Your task to perform on an android device: Go to battery settings Image 0: 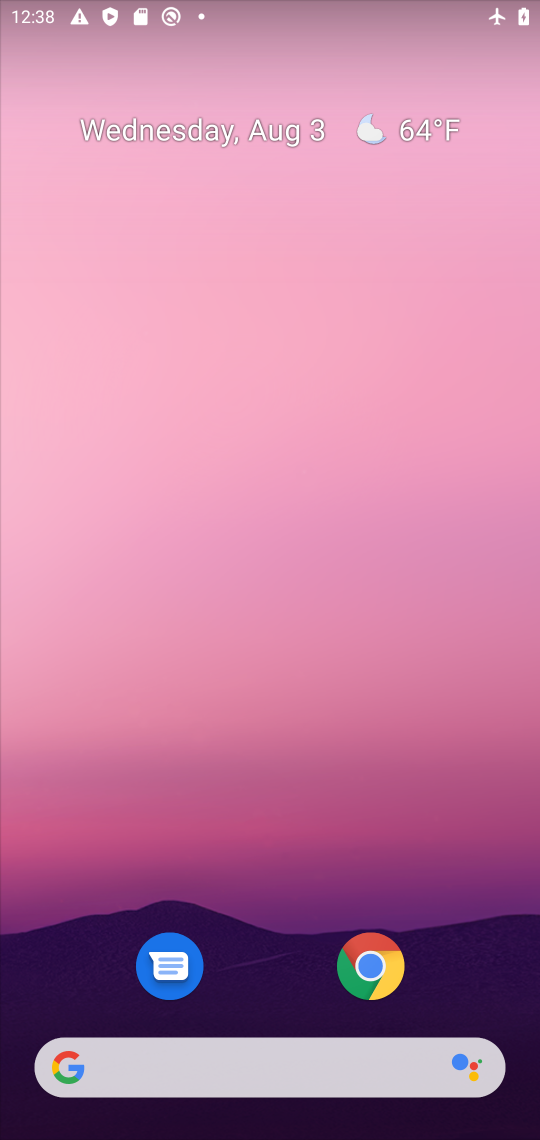
Step 0: drag from (277, 991) to (251, 162)
Your task to perform on an android device: Go to battery settings Image 1: 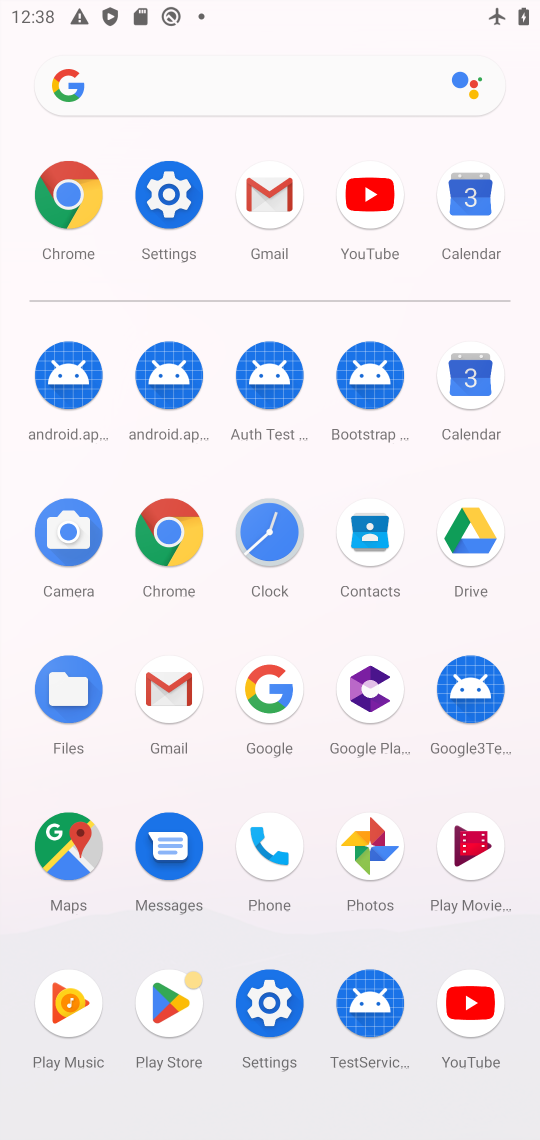
Step 1: click (186, 198)
Your task to perform on an android device: Go to battery settings Image 2: 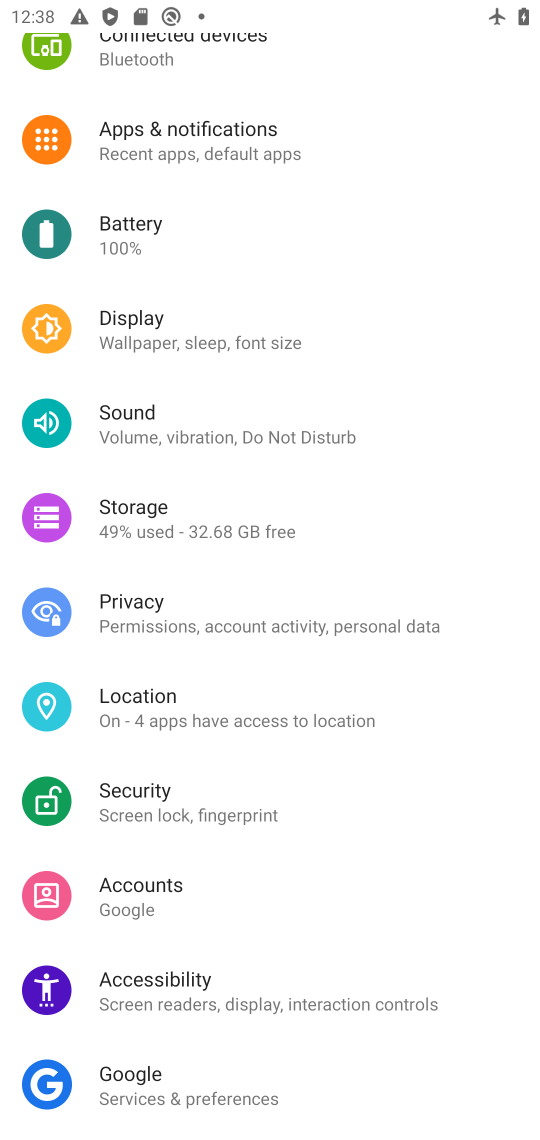
Step 2: click (177, 255)
Your task to perform on an android device: Go to battery settings Image 3: 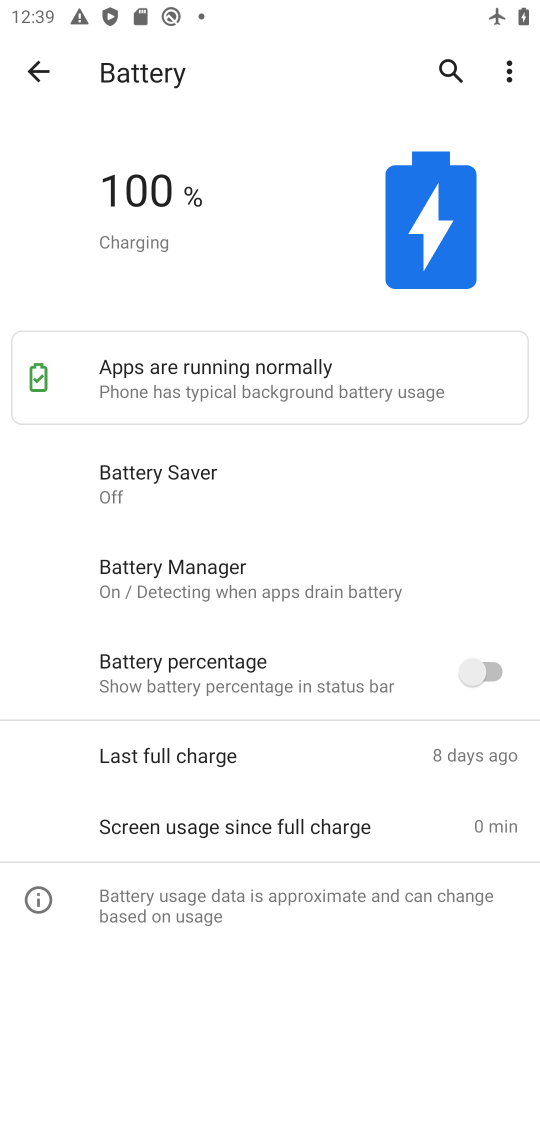
Step 3: task complete